Your task to perform on an android device: choose inbox layout in the gmail app Image 0: 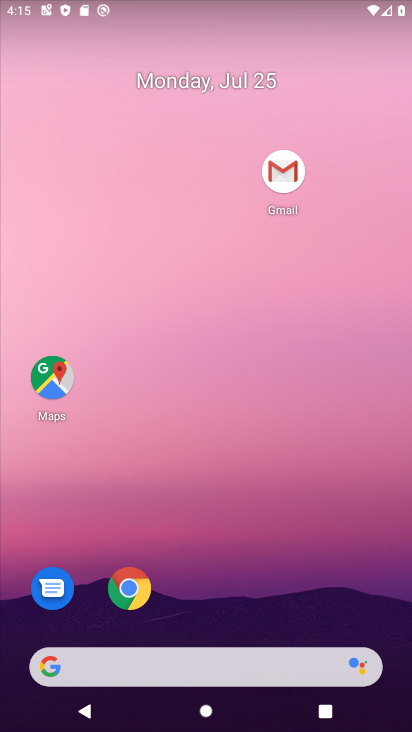
Step 0: drag from (300, 582) to (271, 34)
Your task to perform on an android device: choose inbox layout in the gmail app Image 1: 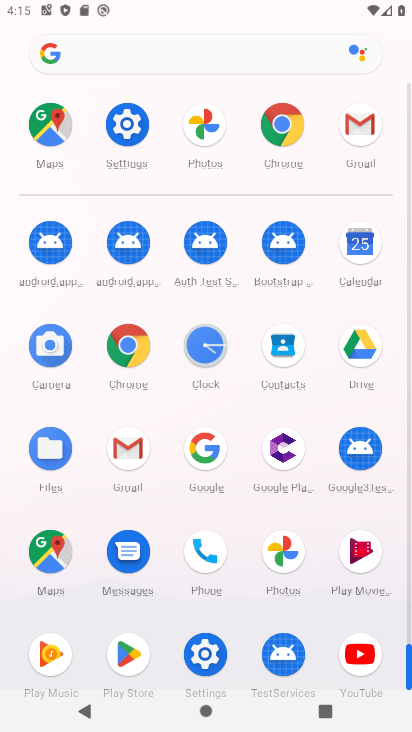
Step 1: click (359, 123)
Your task to perform on an android device: choose inbox layout in the gmail app Image 2: 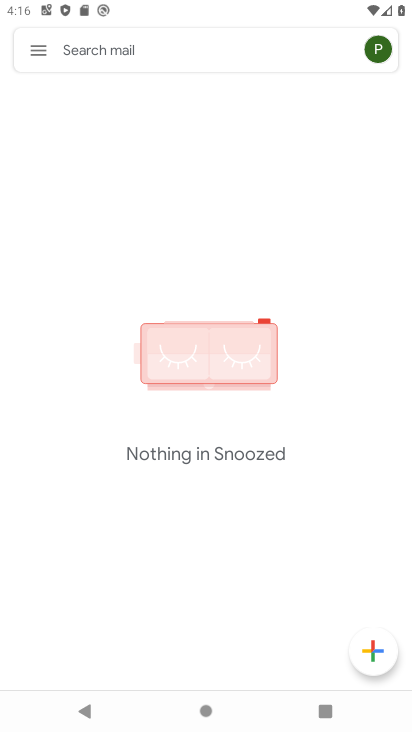
Step 2: click (38, 49)
Your task to perform on an android device: choose inbox layout in the gmail app Image 3: 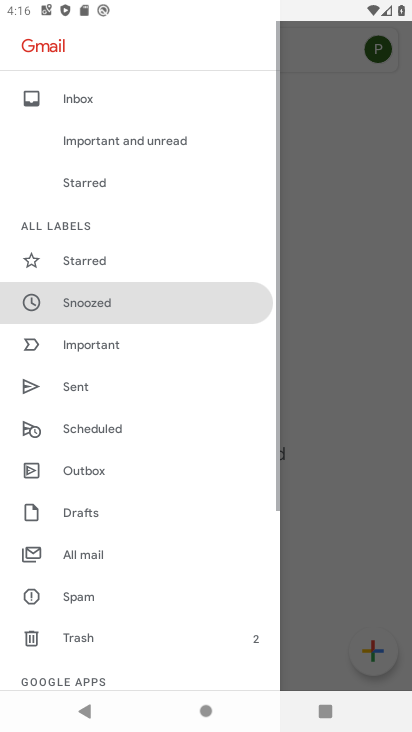
Step 3: drag from (84, 610) to (151, 228)
Your task to perform on an android device: choose inbox layout in the gmail app Image 4: 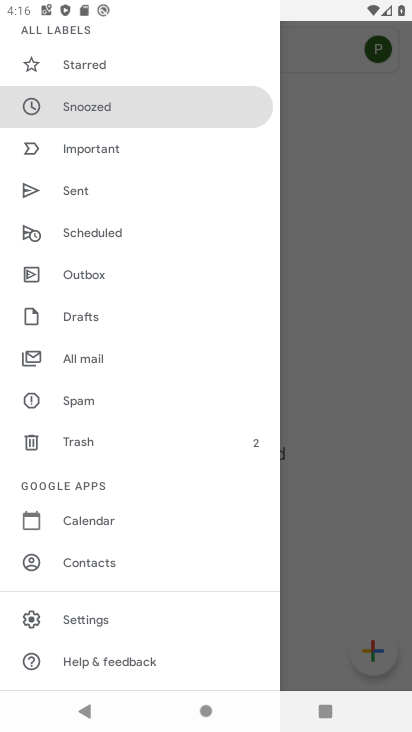
Step 4: click (66, 627)
Your task to perform on an android device: choose inbox layout in the gmail app Image 5: 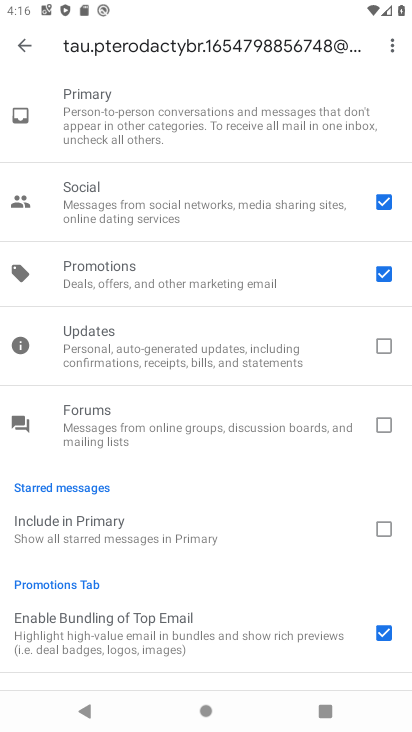
Step 5: task complete